Your task to perform on an android device: check the backup settings in the google photos Image 0: 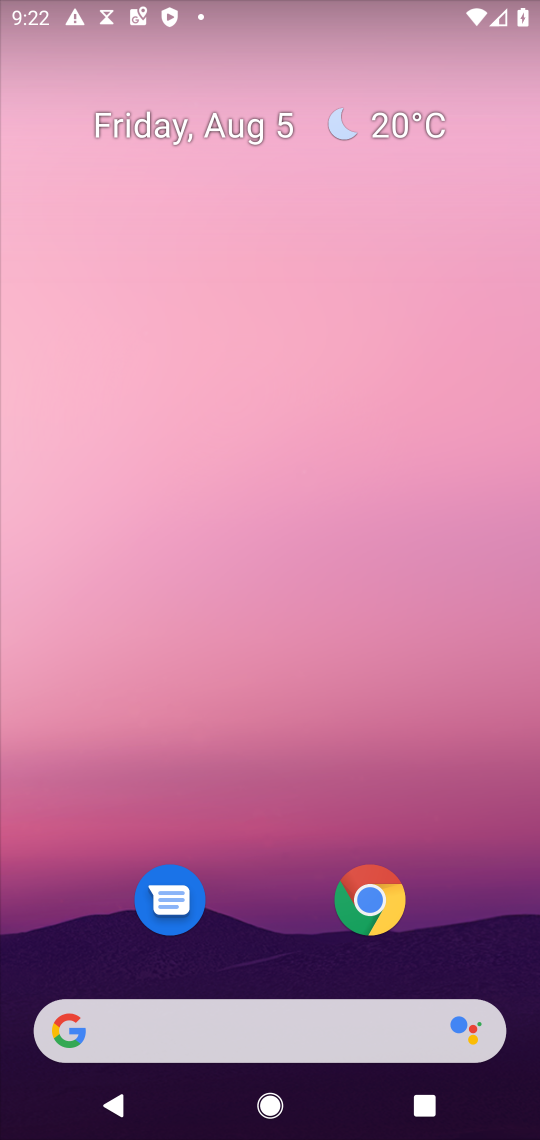
Step 0: press home button
Your task to perform on an android device: check the backup settings in the google photos Image 1: 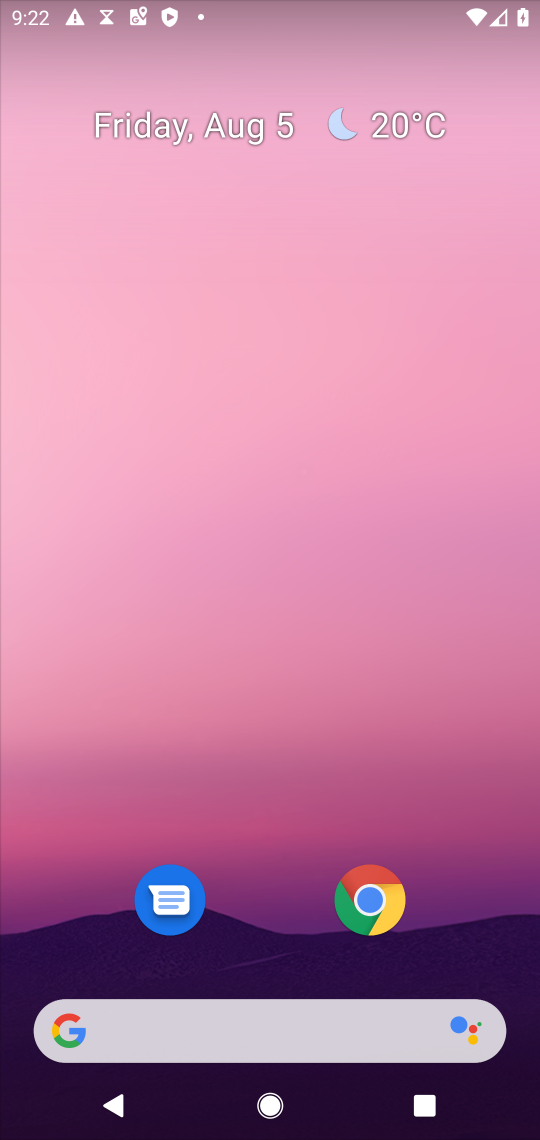
Step 1: drag from (283, 960) to (225, 73)
Your task to perform on an android device: check the backup settings in the google photos Image 2: 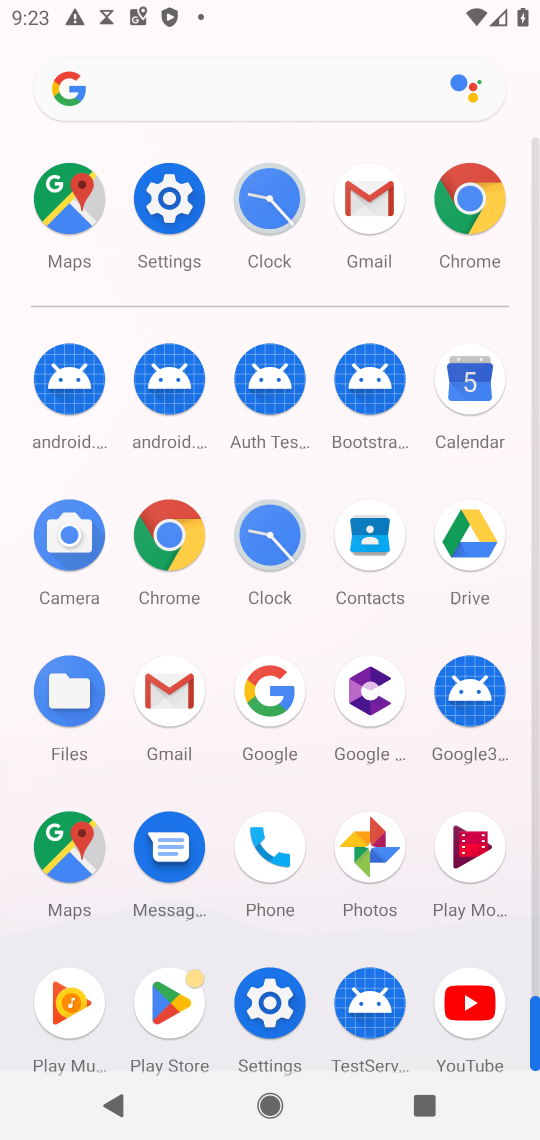
Step 2: click (372, 879)
Your task to perform on an android device: check the backup settings in the google photos Image 3: 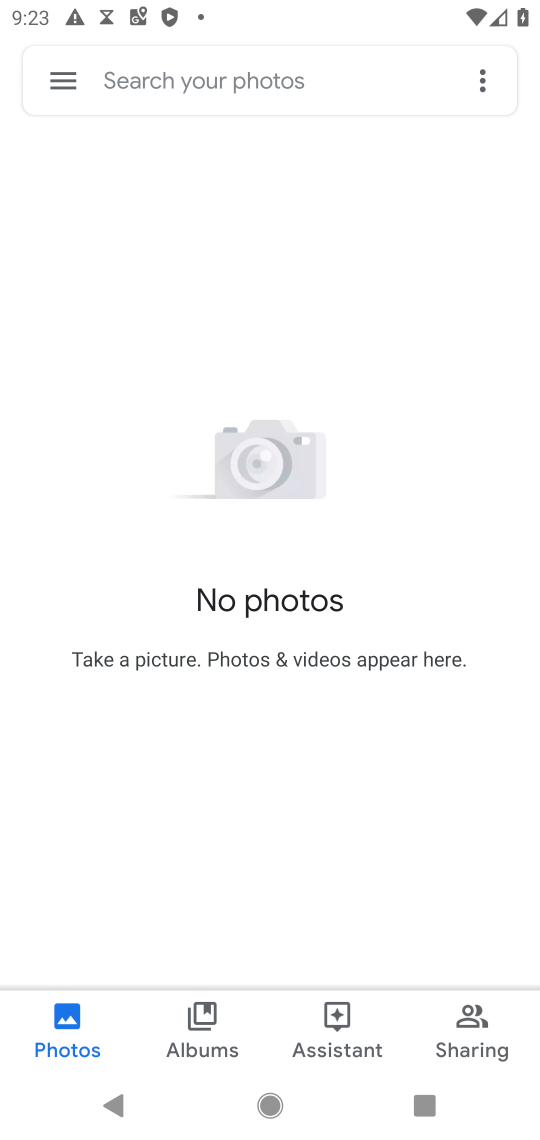
Step 3: click (75, 78)
Your task to perform on an android device: check the backup settings in the google photos Image 4: 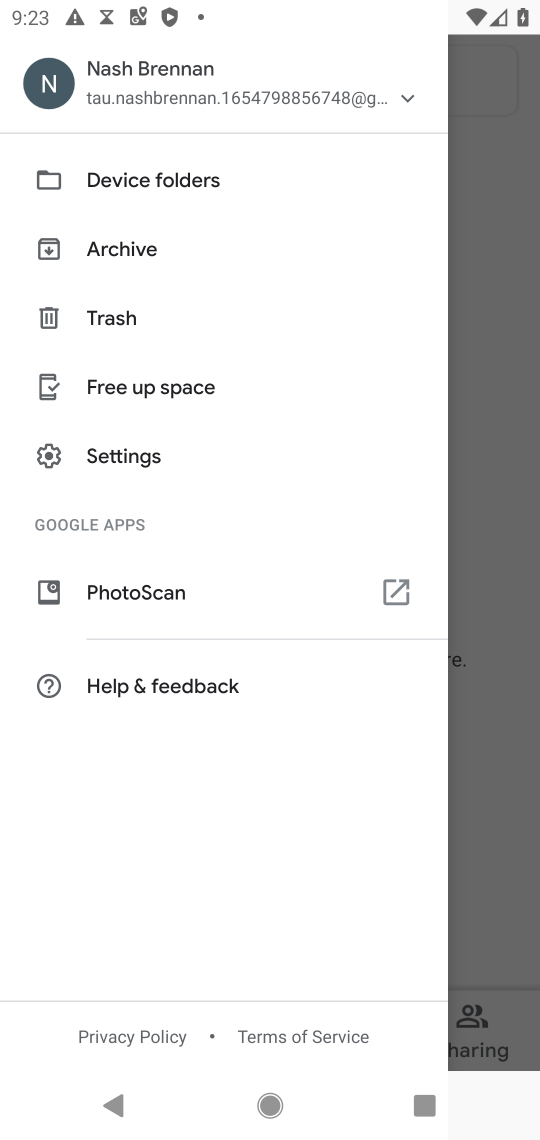
Step 4: click (68, 449)
Your task to perform on an android device: check the backup settings in the google photos Image 5: 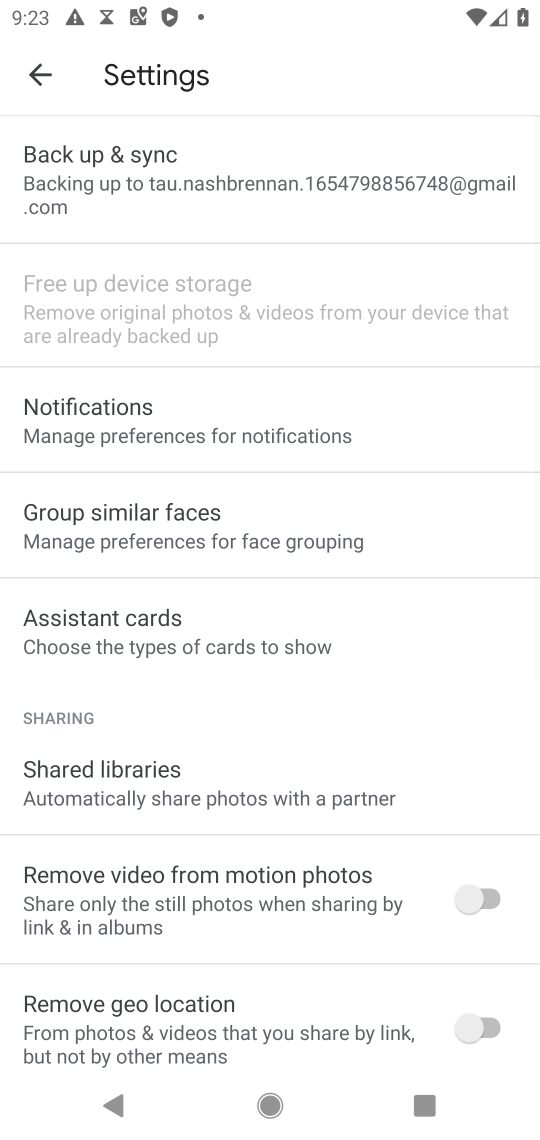
Step 5: click (145, 192)
Your task to perform on an android device: check the backup settings in the google photos Image 6: 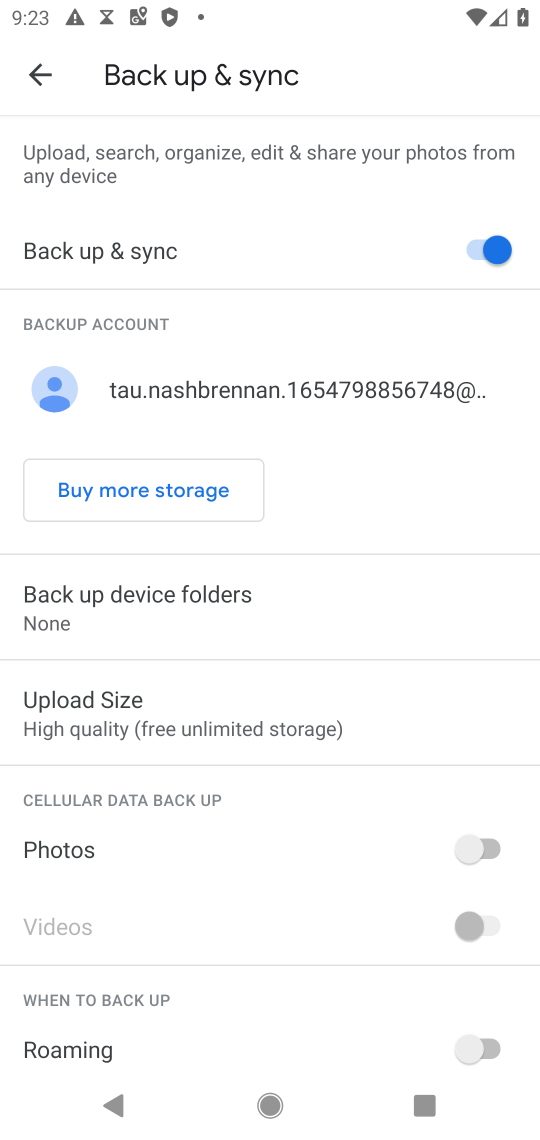
Step 6: task complete